Your task to perform on an android device: change notifications settings Image 0: 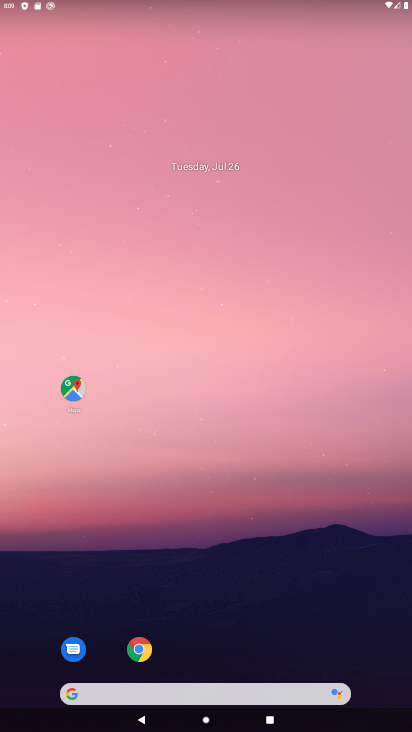
Step 0: drag from (192, 665) to (296, 49)
Your task to perform on an android device: change notifications settings Image 1: 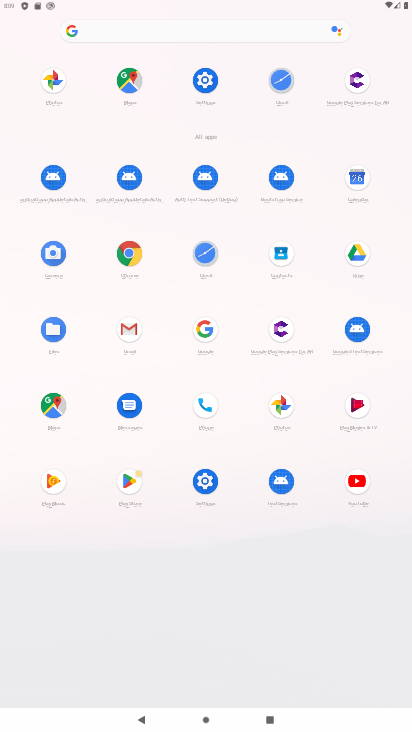
Step 1: click (197, 83)
Your task to perform on an android device: change notifications settings Image 2: 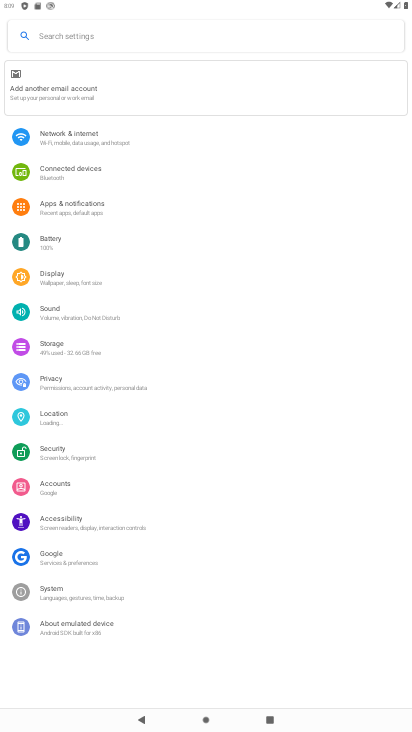
Step 2: click (93, 203)
Your task to perform on an android device: change notifications settings Image 3: 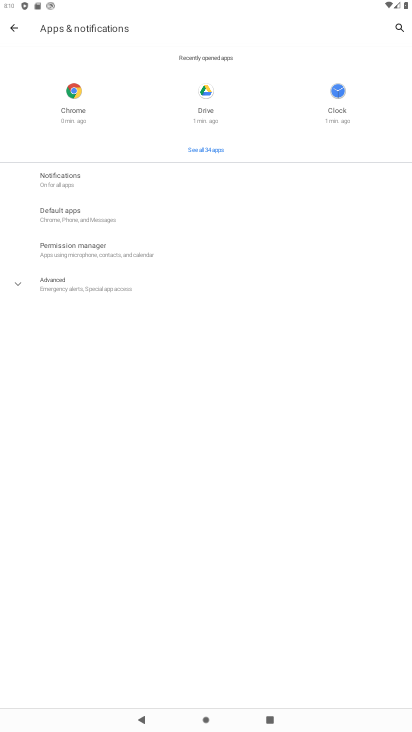
Step 3: click (73, 171)
Your task to perform on an android device: change notifications settings Image 4: 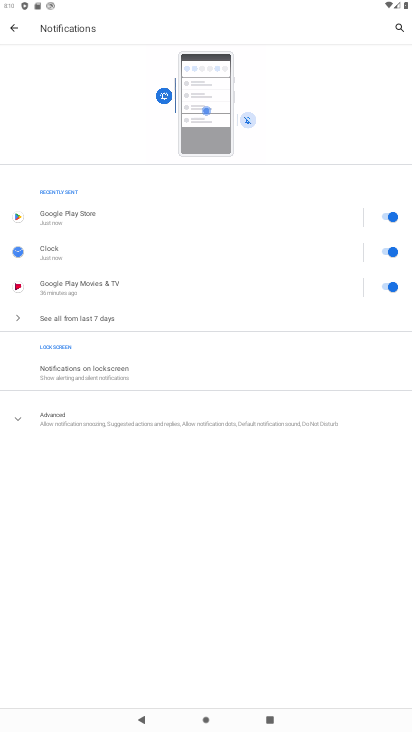
Step 4: click (108, 425)
Your task to perform on an android device: change notifications settings Image 5: 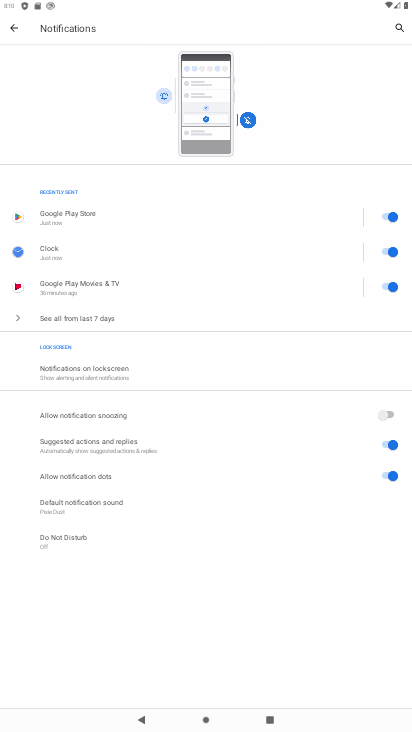
Step 5: click (398, 446)
Your task to perform on an android device: change notifications settings Image 6: 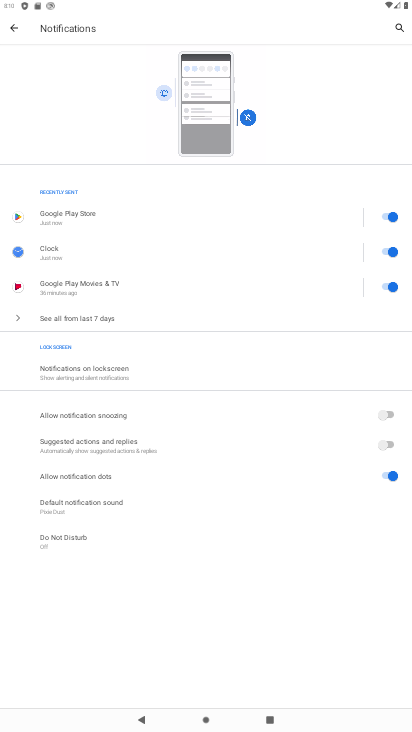
Step 6: click (388, 422)
Your task to perform on an android device: change notifications settings Image 7: 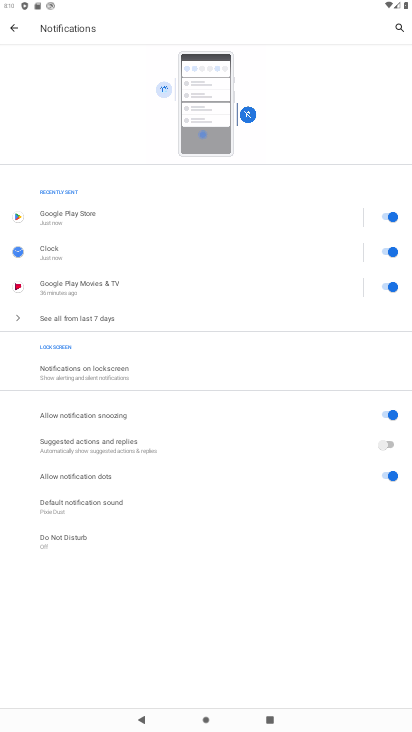
Step 7: task complete